Your task to perform on an android device: turn off airplane mode Image 0: 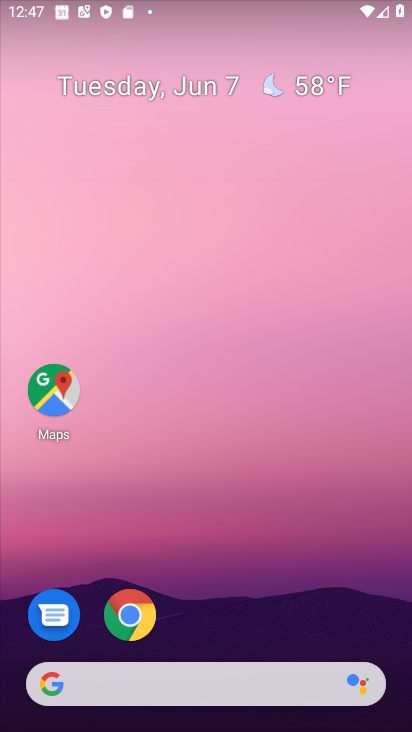
Step 0: drag from (259, 599) to (237, 170)
Your task to perform on an android device: turn off airplane mode Image 1: 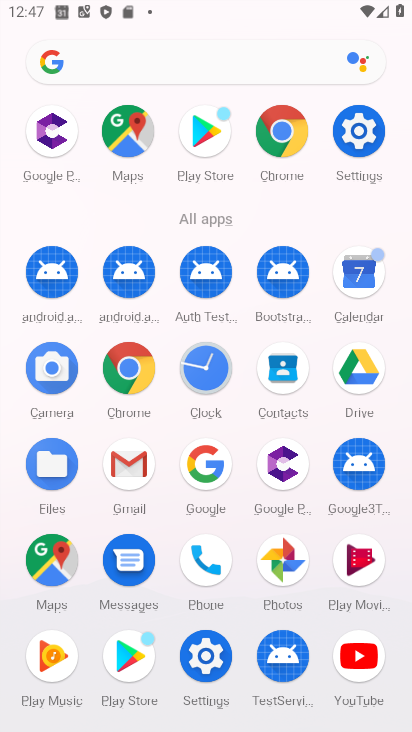
Step 1: click (359, 132)
Your task to perform on an android device: turn off airplane mode Image 2: 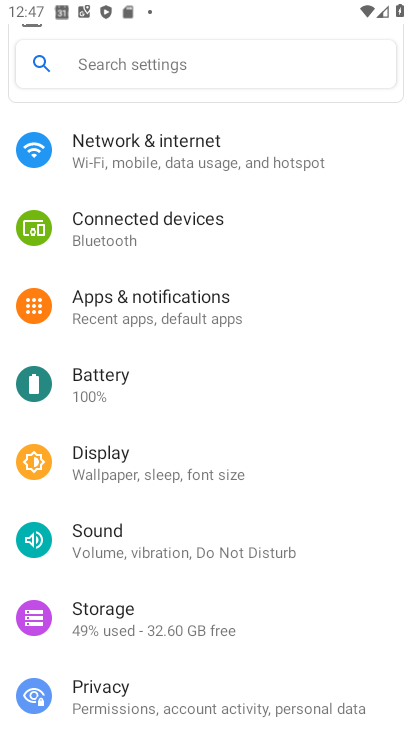
Step 2: click (297, 164)
Your task to perform on an android device: turn off airplane mode Image 3: 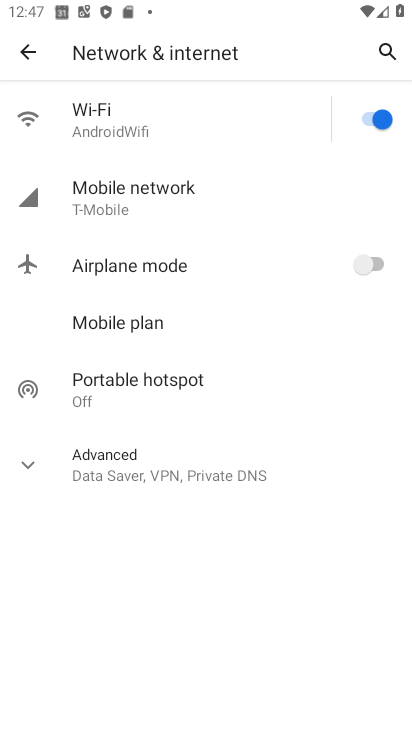
Step 3: task complete